Your task to perform on an android device: What's on my calendar today? Image 0: 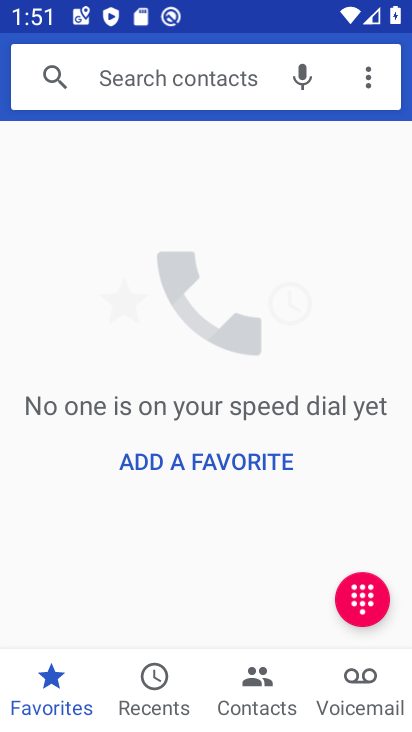
Step 0: press home button
Your task to perform on an android device: What's on my calendar today? Image 1: 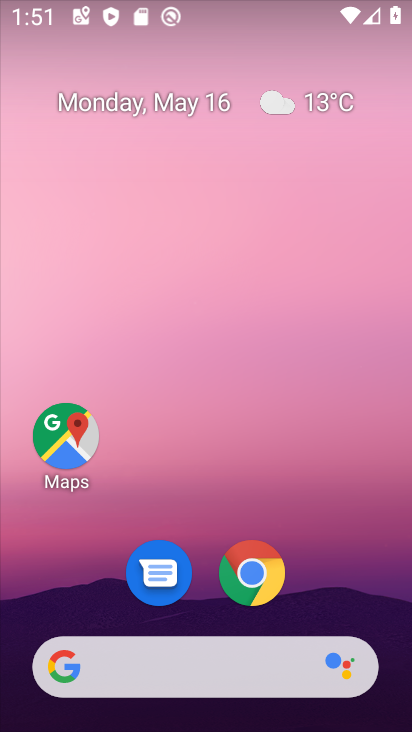
Step 1: drag from (227, 664) to (199, 117)
Your task to perform on an android device: What's on my calendar today? Image 2: 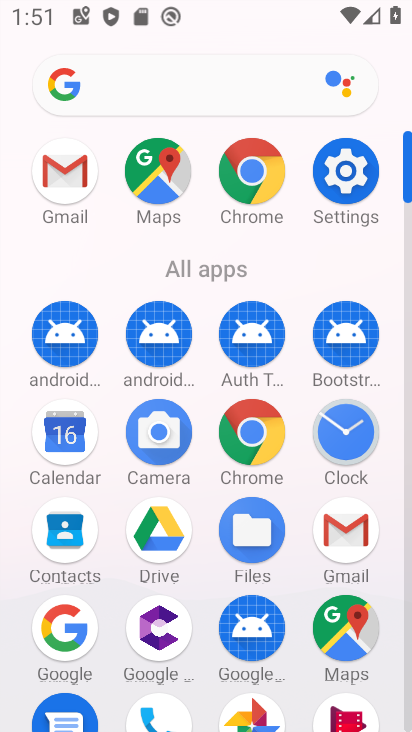
Step 2: click (64, 455)
Your task to perform on an android device: What's on my calendar today? Image 3: 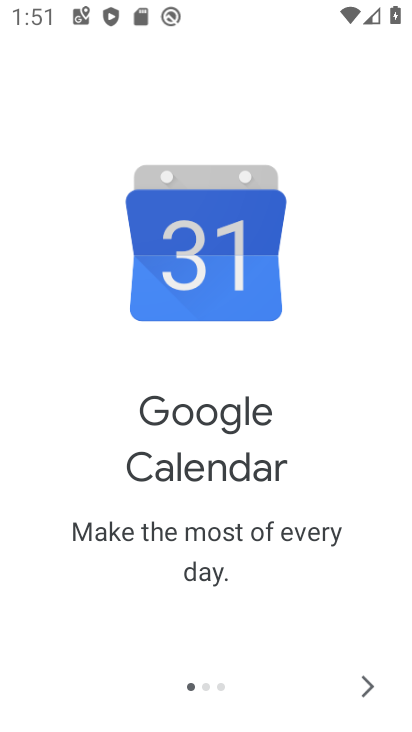
Step 3: click (371, 700)
Your task to perform on an android device: What's on my calendar today? Image 4: 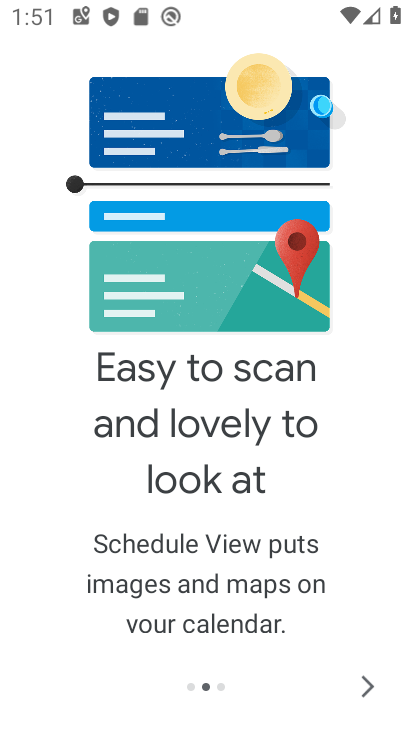
Step 4: click (371, 700)
Your task to perform on an android device: What's on my calendar today? Image 5: 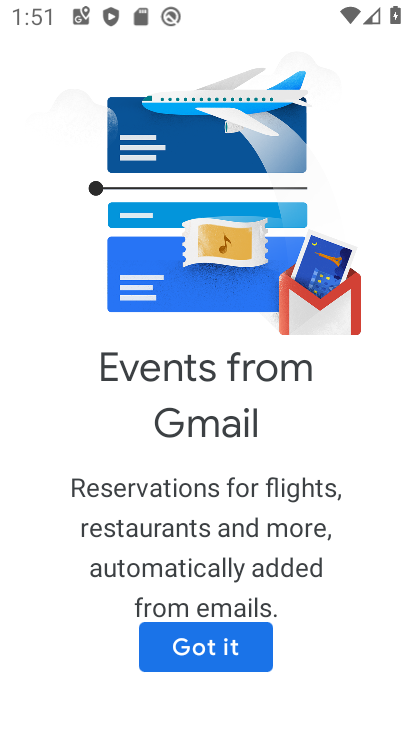
Step 5: click (227, 665)
Your task to perform on an android device: What's on my calendar today? Image 6: 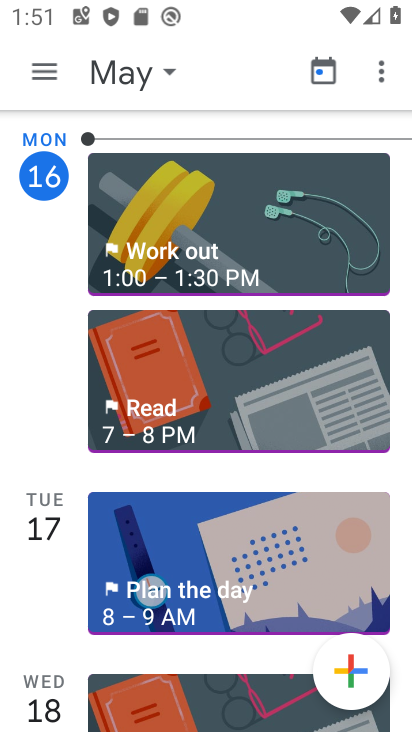
Step 6: task complete